Your task to perform on an android device: What is the news today? Image 0: 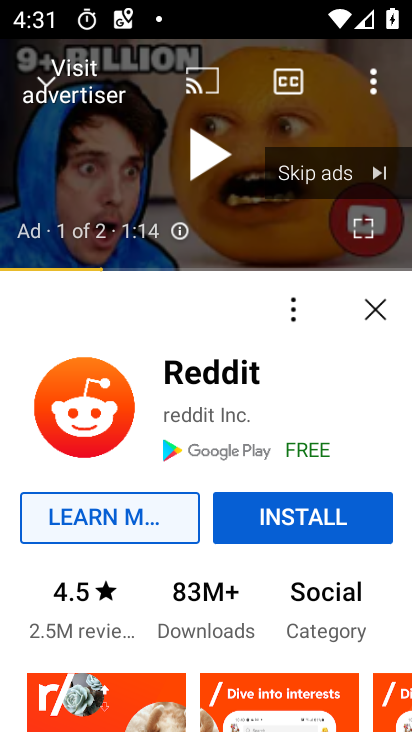
Step 0: press home button
Your task to perform on an android device: What is the news today? Image 1: 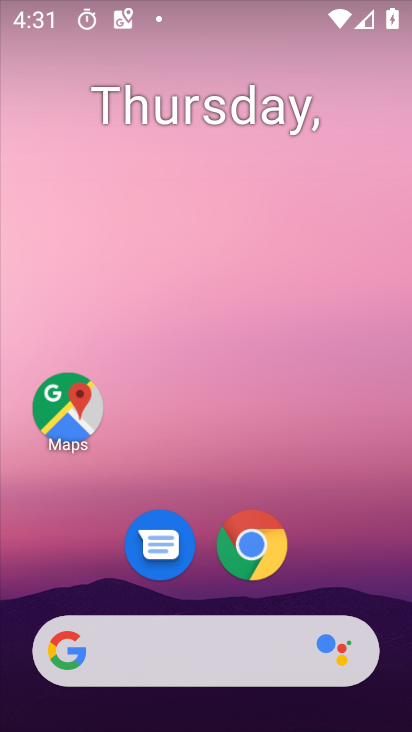
Step 1: task complete